Your task to perform on an android device: turn smart compose on in the gmail app Image 0: 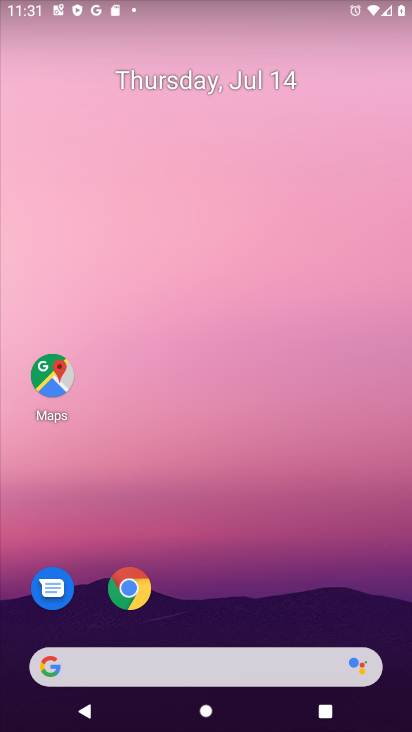
Step 0: press home button
Your task to perform on an android device: turn smart compose on in the gmail app Image 1: 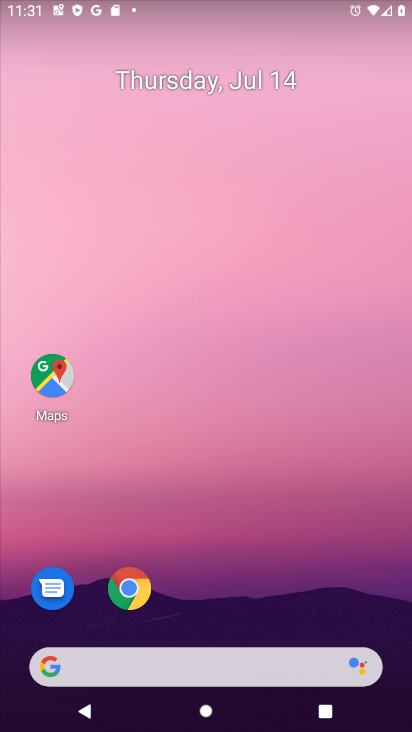
Step 1: drag from (275, 557) to (127, 123)
Your task to perform on an android device: turn smart compose on in the gmail app Image 2: 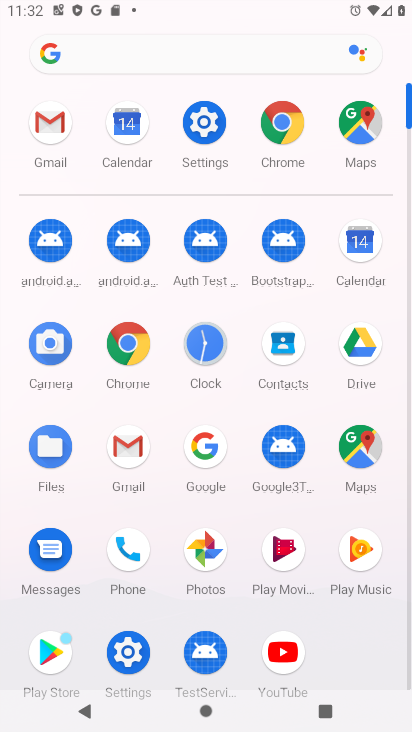
Step 2: click (147, 452)
Your task to perform on an android device: turn smart compose on in the gmail app Image 3: 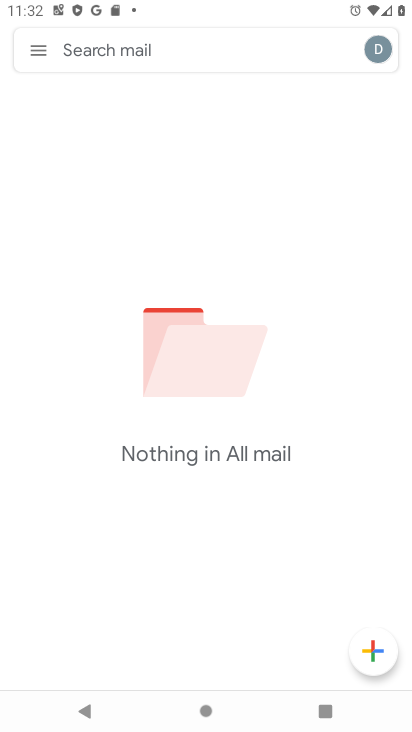
Step 3: click (26, 54)
Your task to perform on an android device: turn smart compose on in the gmail app Image 4: 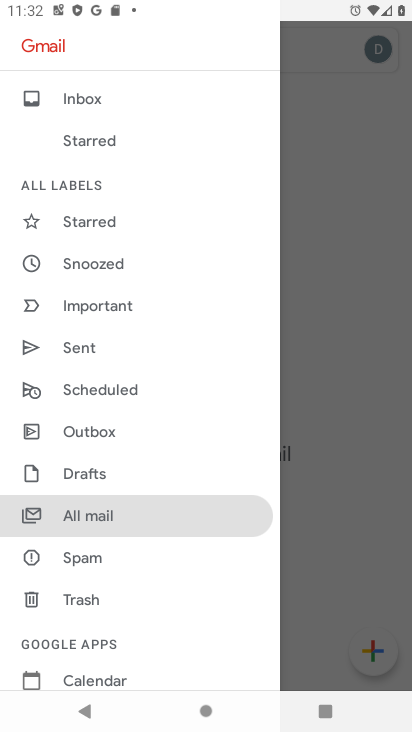
Step 4: drag from (128, 620) to (85, 256)
Your task to perform on an android device: turn smart compose on in the gmail app Image 5: 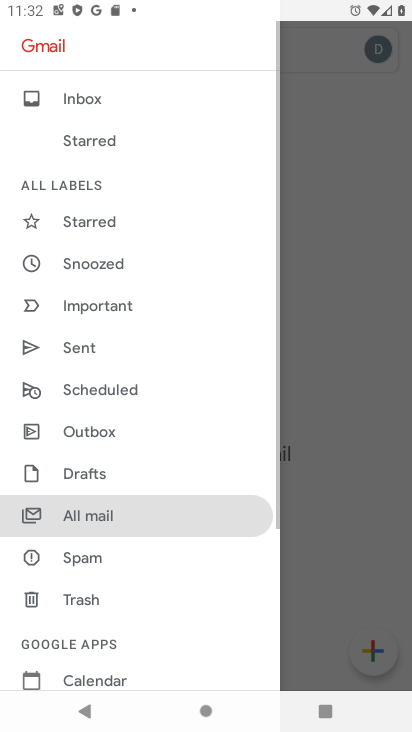
Step 5: drag from (88, 594) to (70, 190)
Your task to perform on an android device: turn smart compose on in the gmail app Image 6: 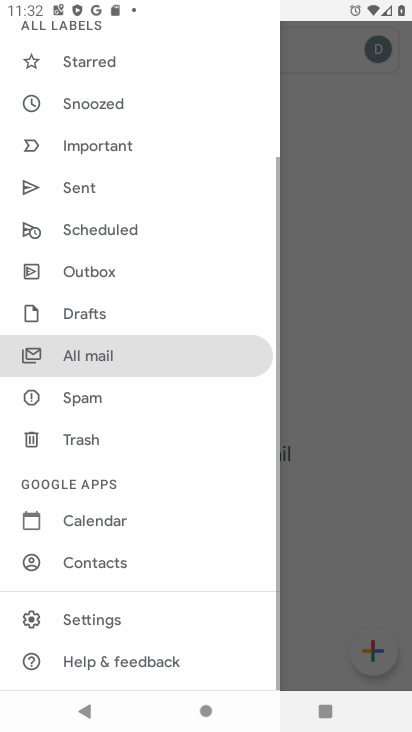
Step 6: click (72, 617)
Your task to perform on an android device: turn smart compose on in the gmail app Image 7: 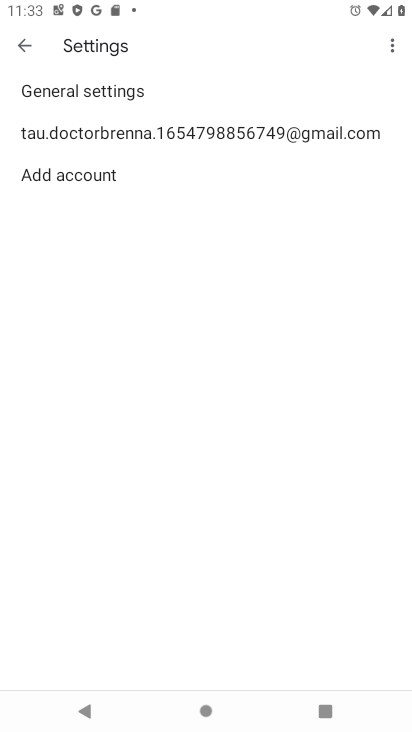
Step 7: click (177, 138)
Your task to perform on an android device: turn smart compose on in the gmail app Image 8: 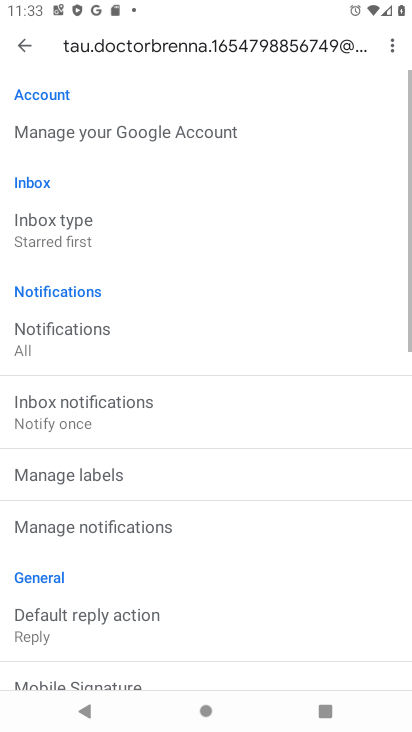
Step 8: task complete